Your task to perform on an android device: Open Google Chrome and click the shortcut for Amazon.com Image 0: 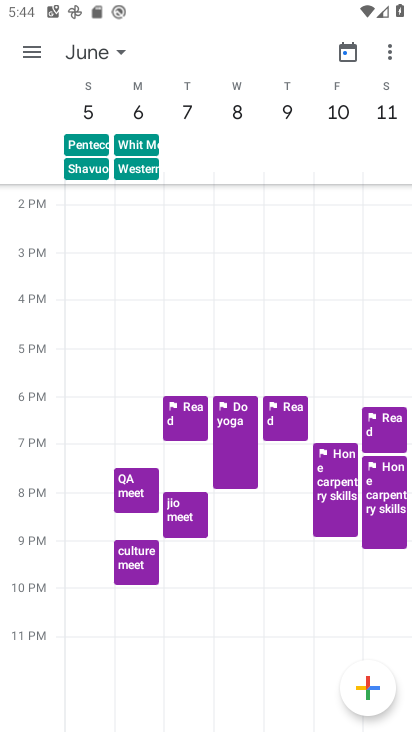
Step 0: press home button
Your task to perform on an android device: Open Google Chrome and click the shortcut for Amazon.com Image 1: 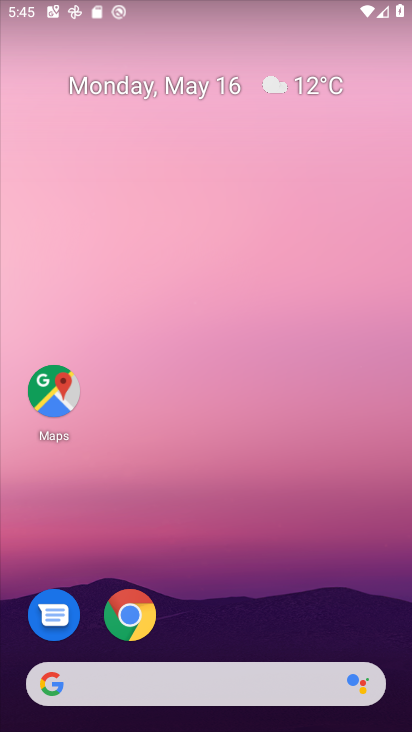
Step 1: drag from (213, 560) to (278, 20)
Your task to perform on an android device: Open Google Chrome and click the shortcut for Amazon.com Image 2: 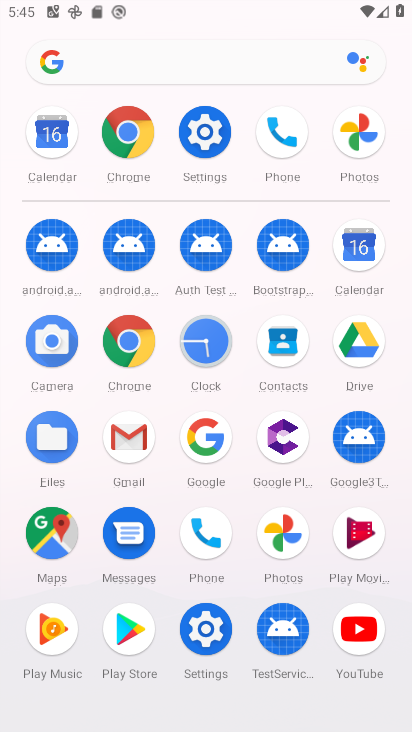
Step 2: click (127, 159)
Your task to perform on an android device: Open Google Chrome and click the shortcut for Amazon.com Image 3: 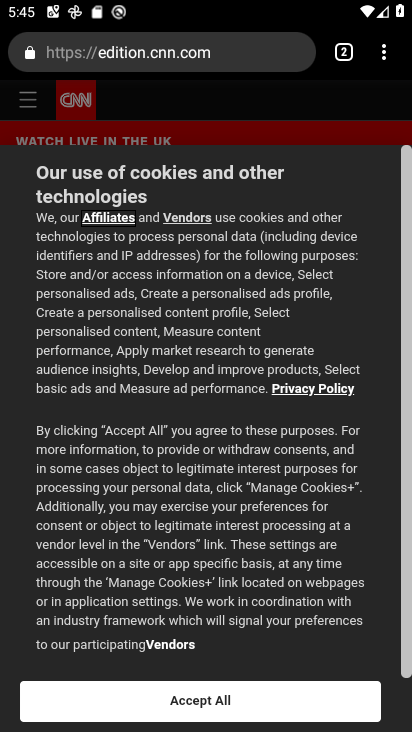
Step 3: press back button
Your task to perform on an android device: Open Google Chrome and click the shortcut for Amazon.com Image 4: 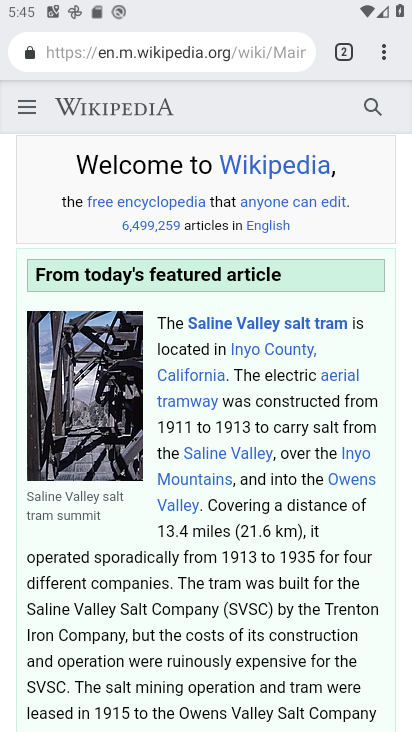
Step 4: click (344, 50)
Your task to perform on an android device: Open Google Chrome and click the shortcut for Amazon.com Image 5: 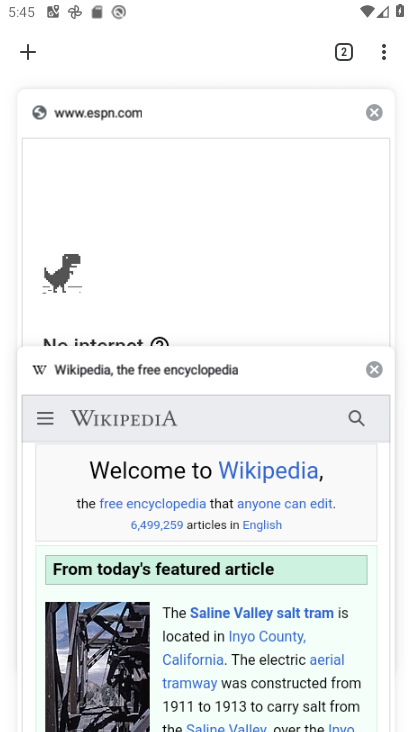
Step 5: click (22, 56)
Your task to perform on an android device: Open Google Chrome and click the shortcut for Amazon.com Image 6: 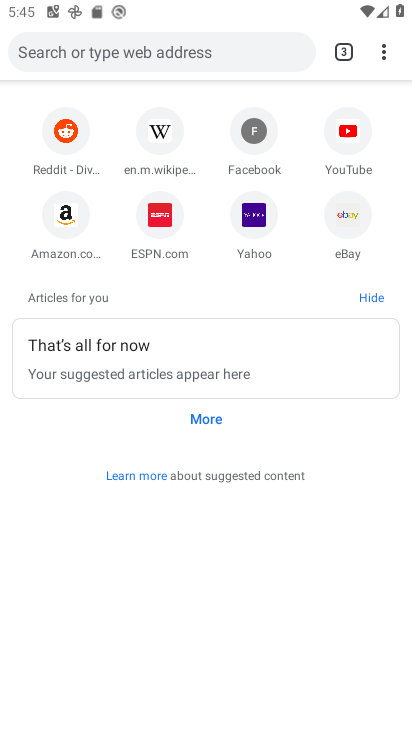
Step 6: click (79, 217)
Your task to perform on an android device: Open Google Chrome and click the shortcut for Amazon.com Image 7: 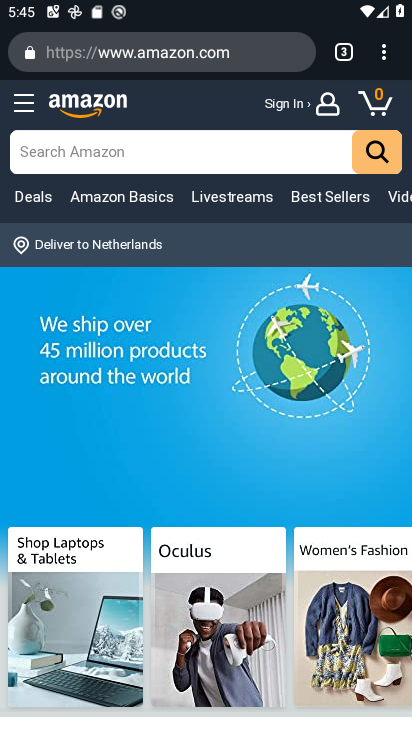
Step 7: task complete